Your task to perform on an android device: create a new album in the google photos Image 0: 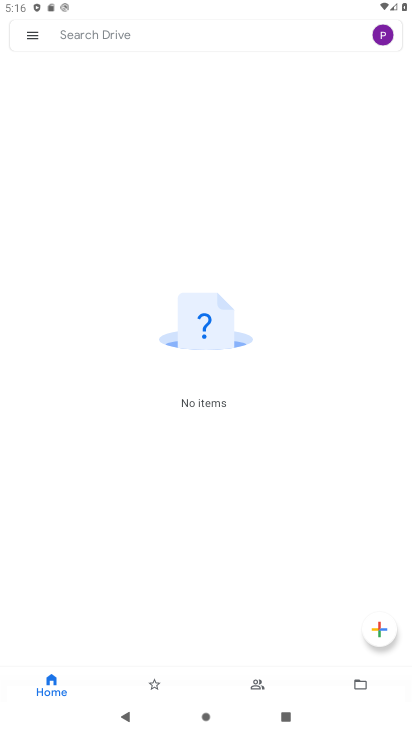
Step 0: press back button
Your task to perform on an android device: create a new album in the google photos Image 1: 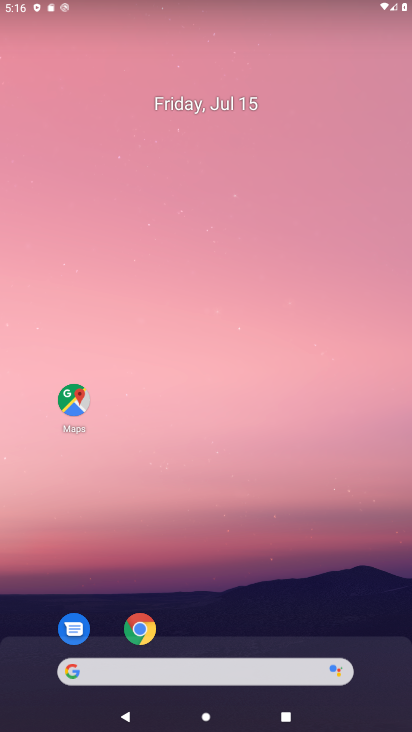
Step 1: drag from (151, 659) to (231, 86)
Your task to perform on an android device: create a new album in the google photos Image 2: 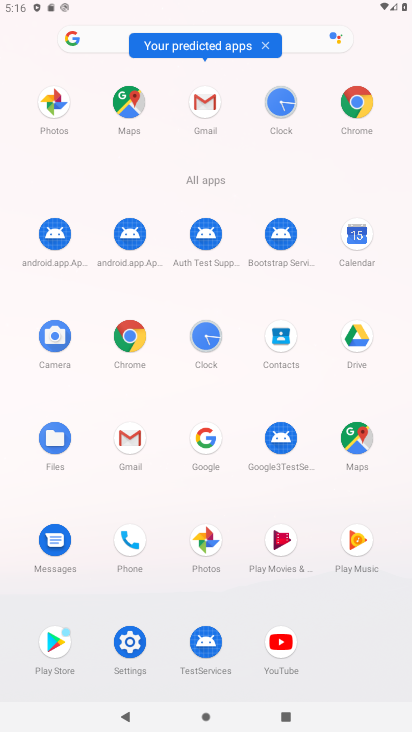
Step 2: click (211, 545)
Your task to perform on an android device: create a new album in the google photos Image 3: 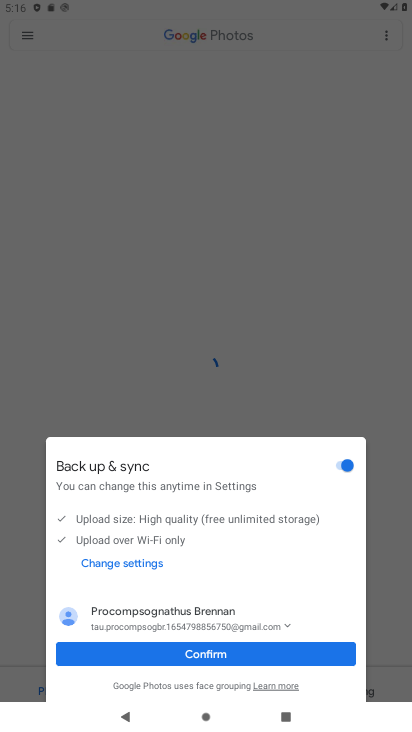
Step 3: click (232, 657)
Your task to perform on an android device: create a new album in the google photos Image 4: 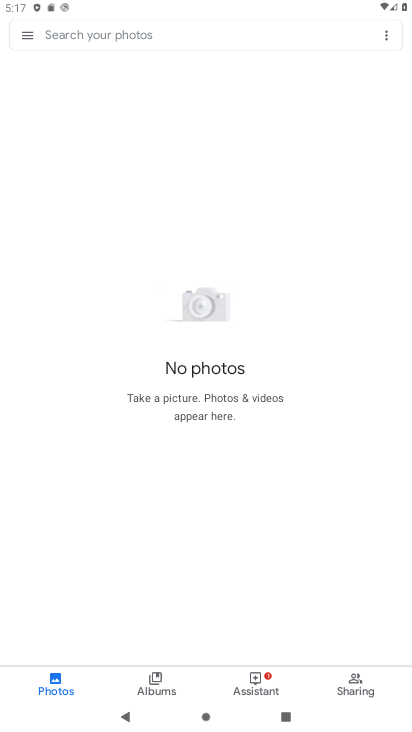
Step 4: click (157, 690)
Your task to perform on an android device: create a new album in the google photos Image 5: 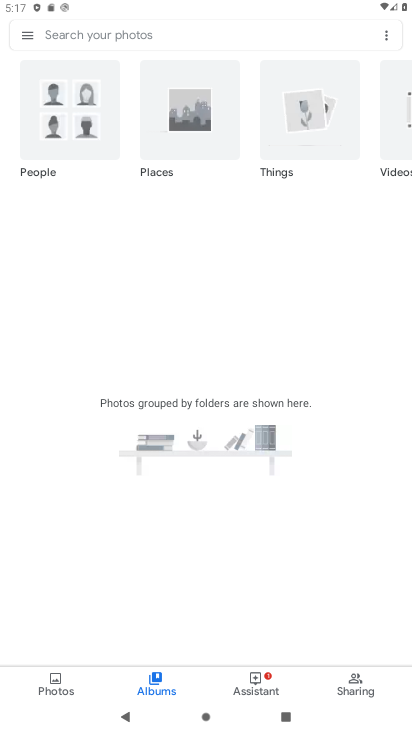
Step 5: click (383, 35)
Your task to perform on an android device: create a new album in the google photos Image 6: 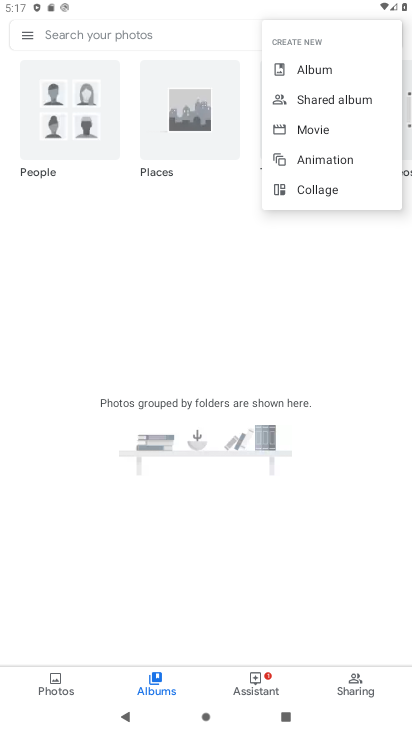
Step 6: click (343, 71)
Your task to perform on an android device: create a new album in the google photos Image 7: 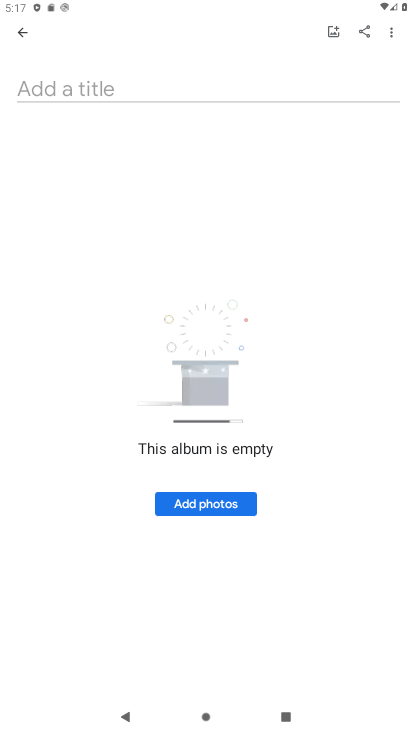
Step 7: click (109, 85)
Your task to perform on an android device: create a new album in the google photos Image 8: 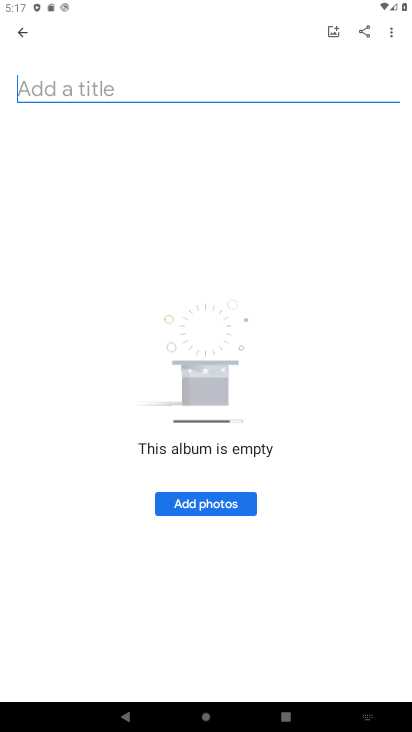
Step 8: type "vfbfb"
Your task to perform on an android device: create a new album in the google photos Image 9: 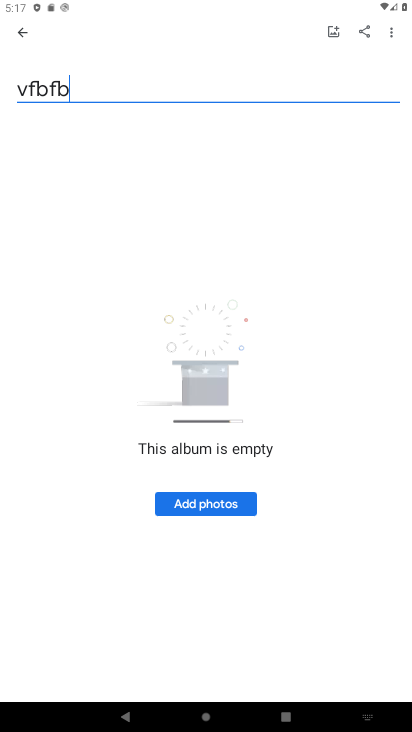
Step 9: click (190, 499)
Your task to perform on an android device: create a new album in the google photos Image 10: 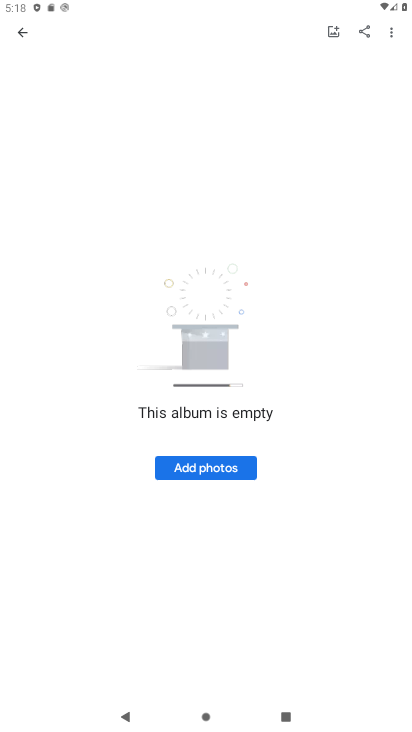
Step 10: click (199, 468)
Your task to perform on an android device: create a new album in the google photos Image 11: 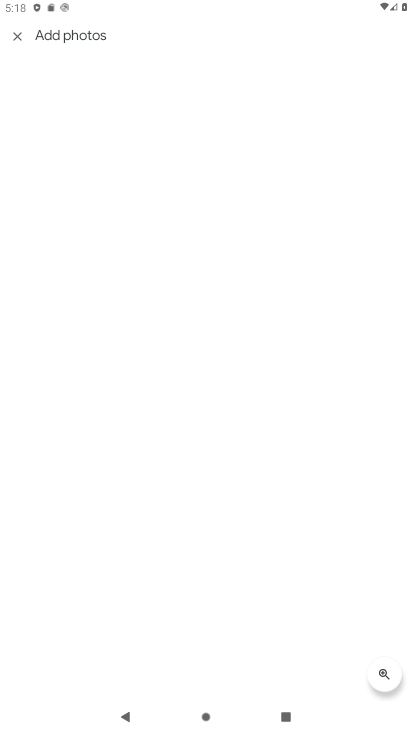
Step 11: task complete